Your task to perform on an android device: toggle show notifications on the lock screen Image 0: 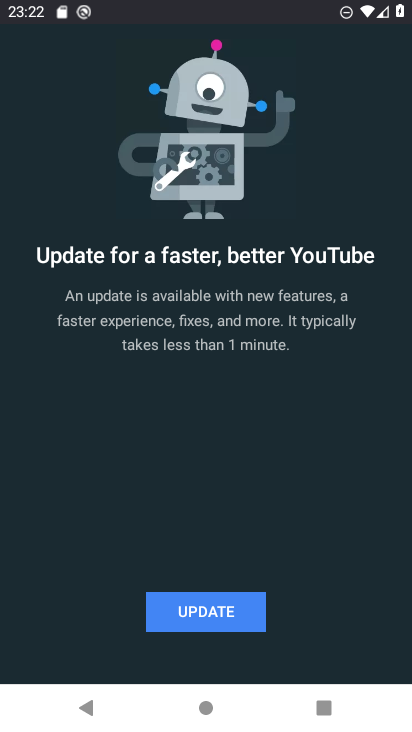
Step 0: press home button
Your task to perform on an android device: toggle show notifications on the lock screen Image 1: 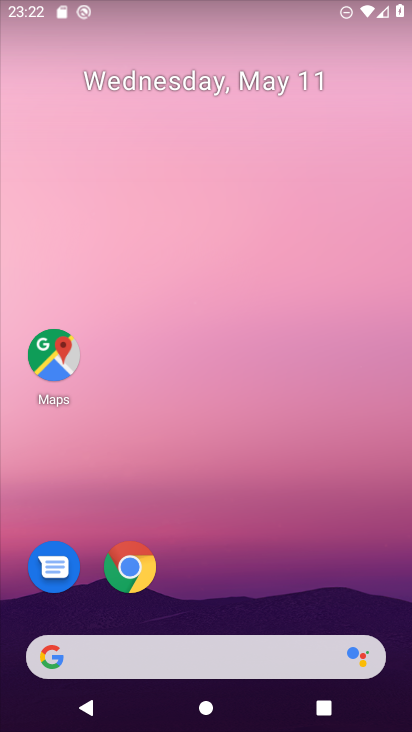
Step 1: drag from (156, 699) to (259, 1)
Your task to perform on an android device: toggle show notifications on the lock screen Image 2: 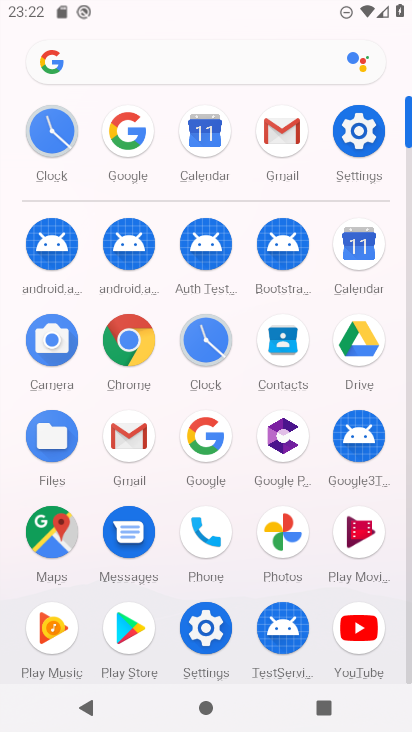
Step 2: click (355, 123)
Your task to perform on an android device: toggle show notifications on the lock screen Image 3: 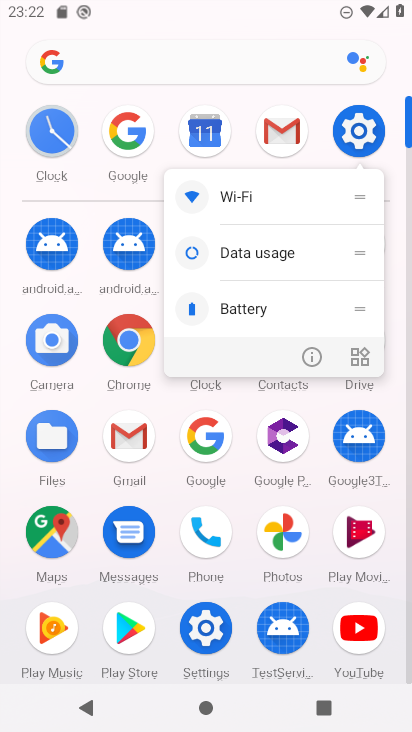
Step 3: click (361, 138)
Your task to perform on an android device: toggle show notifications on the lock screen Image 4: 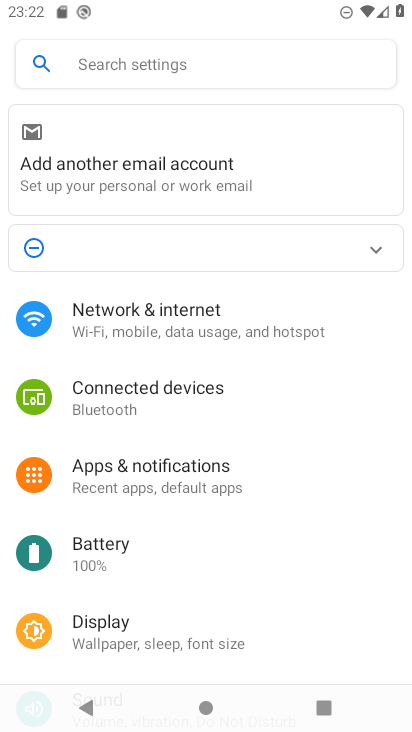
Step 4: click (230, 461)
Your task to perform on an android device: toggle show notifications on the lock screen Image 5: 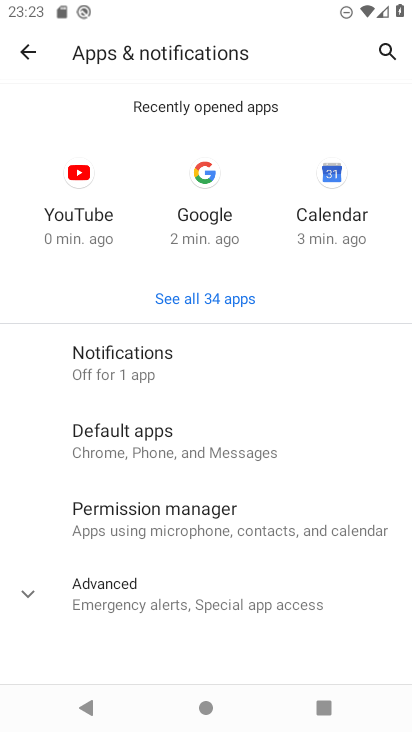
Step 5: click (216, 361)
Your task to perform on an android device: toggle show notifications on the lock screen Image 6: 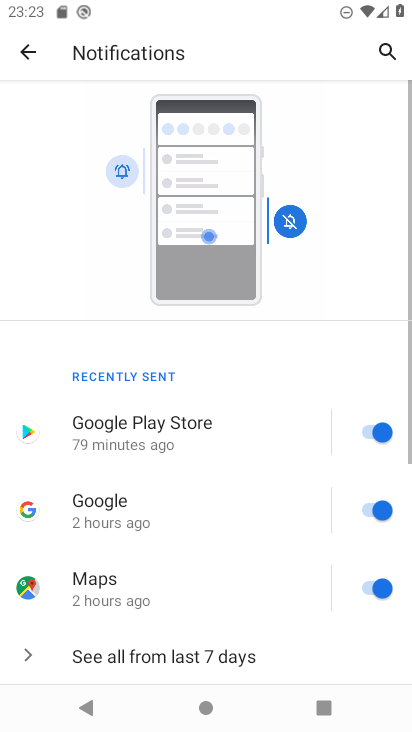
Step 6: drag from (233, 598) to (320, 46)
Your task to perform on an android device: toggle show notifications on the lock screen Image 7: 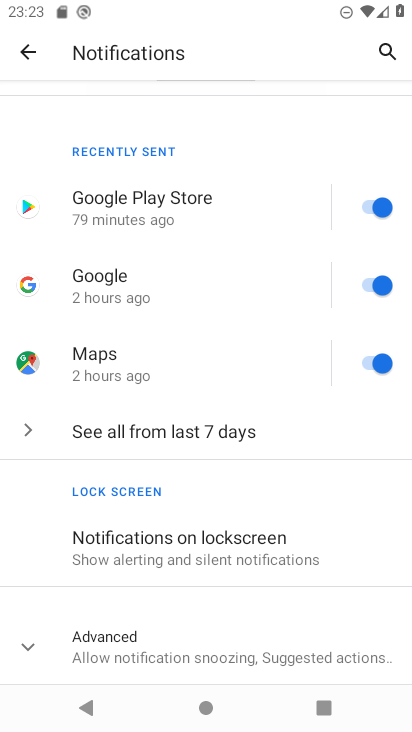
Step 7: click (203, 652)
Your task to perform on an android device: toggle show notifications on the lock screen Image 8: 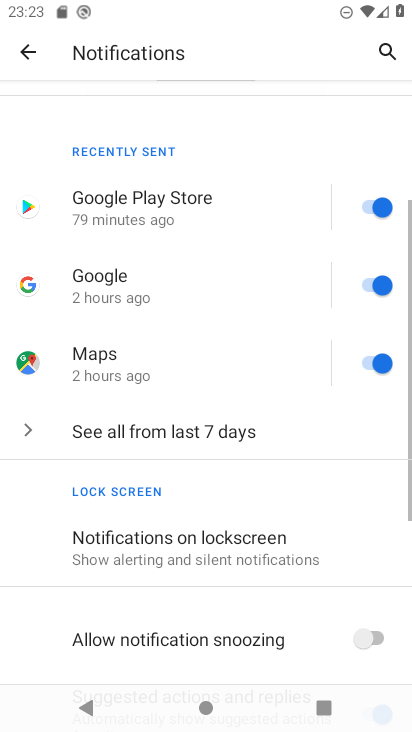
Step 8: click (247, 542)
Your task to perform on an android device: toggle show notifications on the lock screen Image 9: 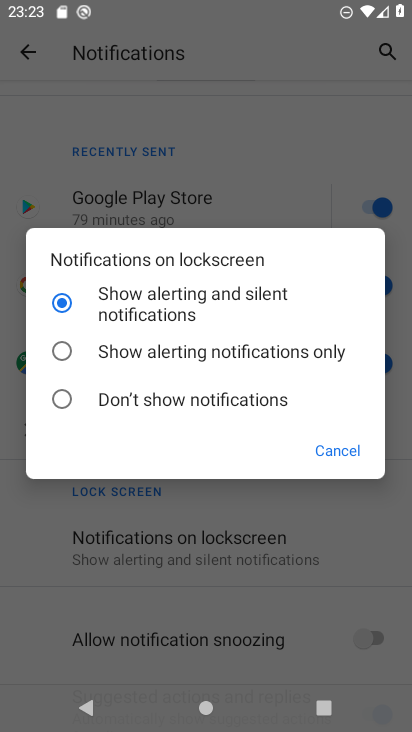
Step 9: click (61, 401)
Your task to perform on an android device: toggle show notifications on the lock screen Image 10: 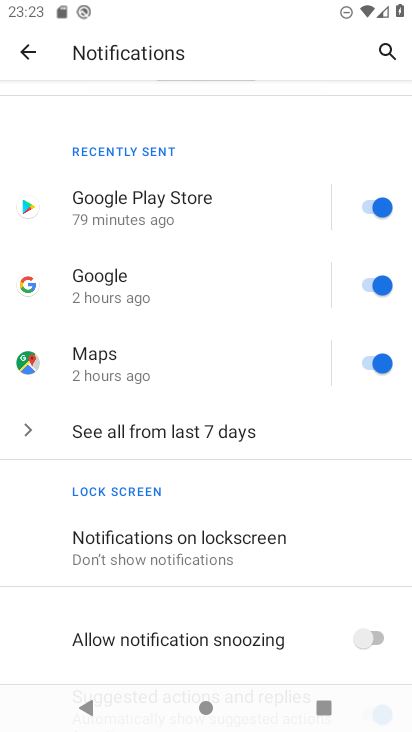
Step 10: task complete